Your task to perform on an android device: Do I have any events today? Image 0: 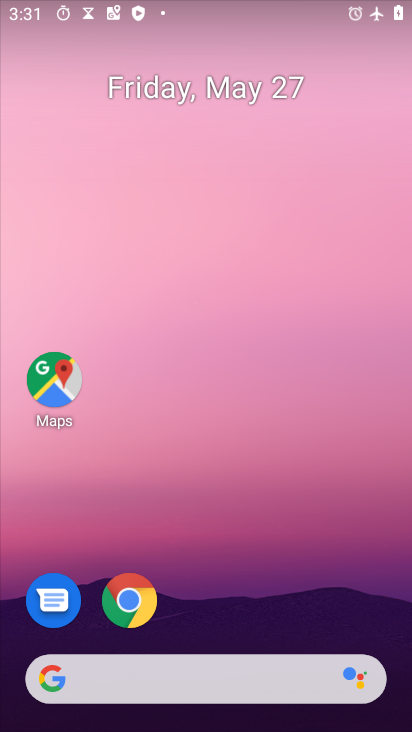
Step 0: drag from (235, 491) to (235, 68)
Your task to perform on an android device: Do I have any events today? Image 1: 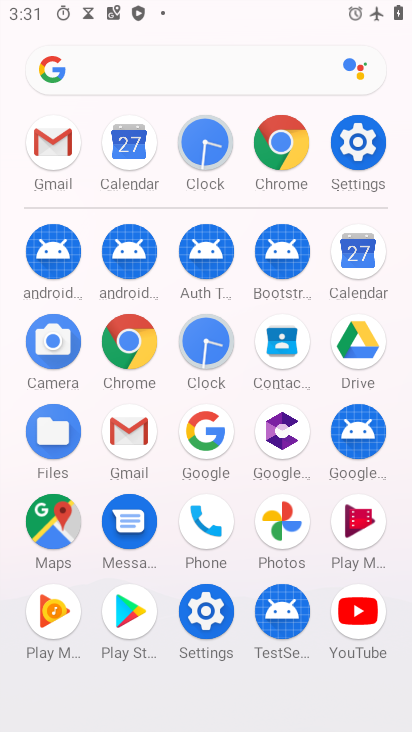
Step 1: drag from (0, 489) to (15, 206)
Your task to perform on an android device: Do I have any events today? Image 2: 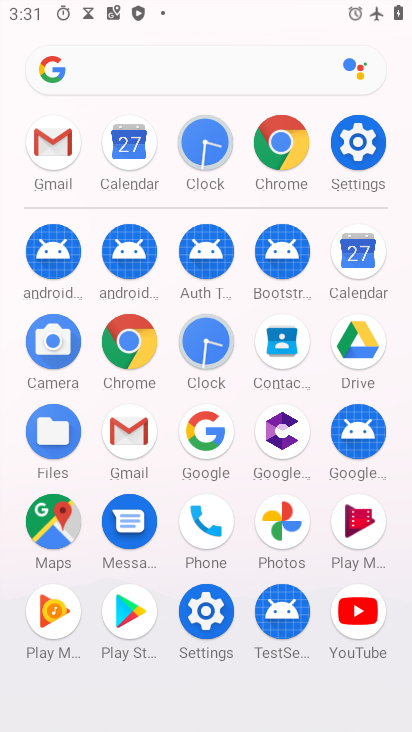
Step 2: drag from (8, 549) to (21, 251)
Your task to perform on an android device: Do I have any events today? Image 3: 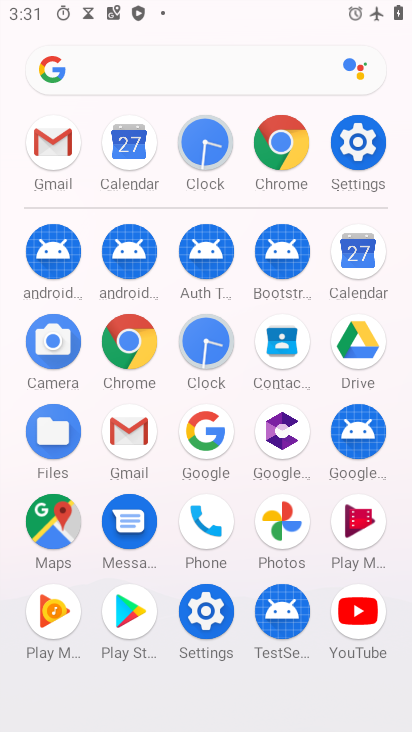
Step 3: click (363, 253)
Your task to perform on an android device: Do I have any events today? Image 4: 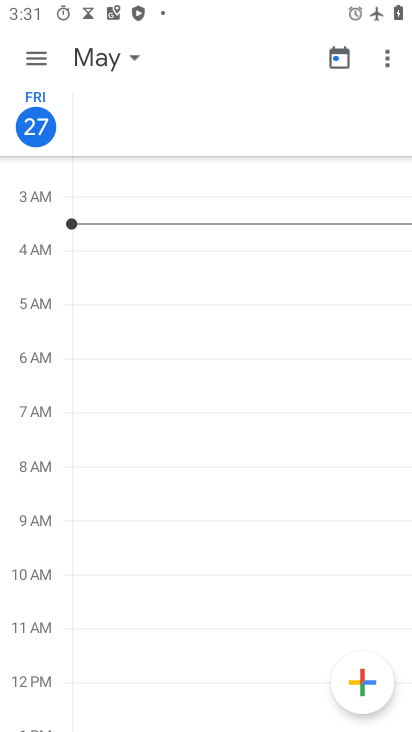
Step 4: click (37, 47)
Your task to perform on an android device: Do I have any events today? Image 5: 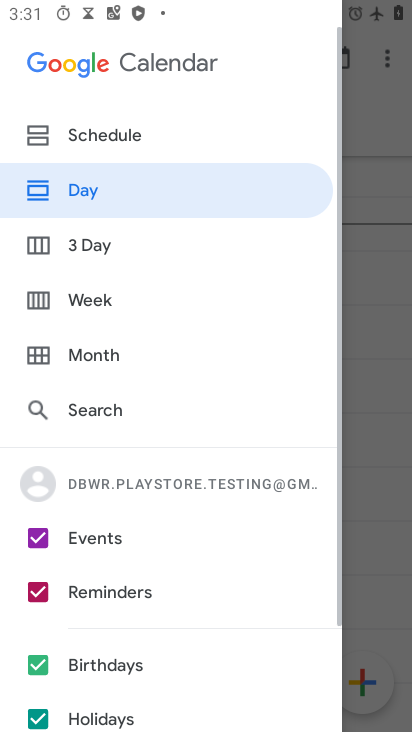
Step 5: click (103, 130)
Your task to perform on an android device: Do I have any events today? Image 6: 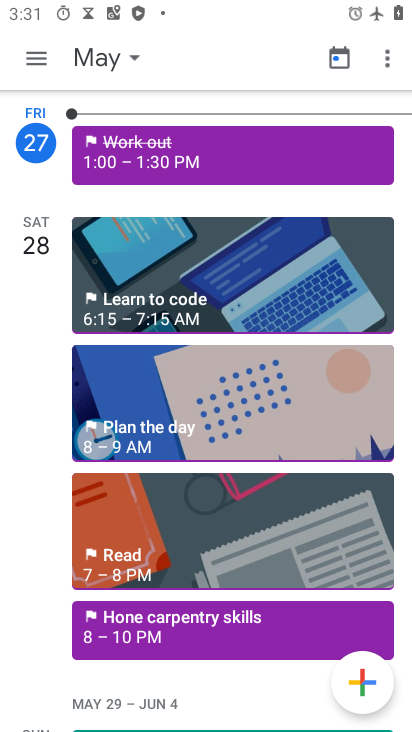
Step 6: click (35, 142)
Your task to perform on an android device: Do I have any events today? Image 7: 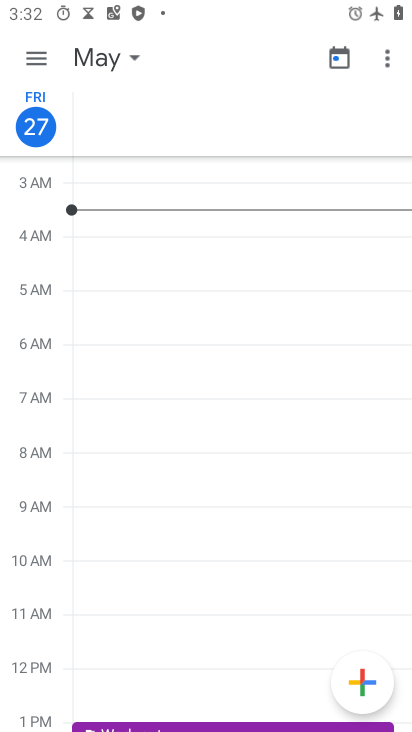
Step 7: task complete